Your task to perform on an android device: turn pop-ups off in chrome Image 0: 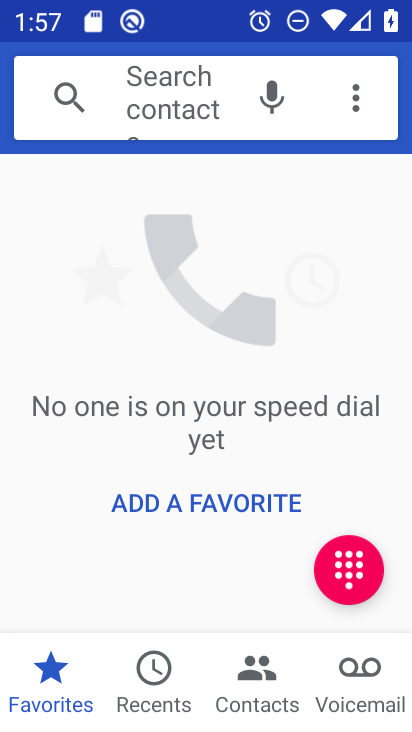
Step 0: press home button
Your task to perform on an android device: turn pop-ups off in chrome Image 1: 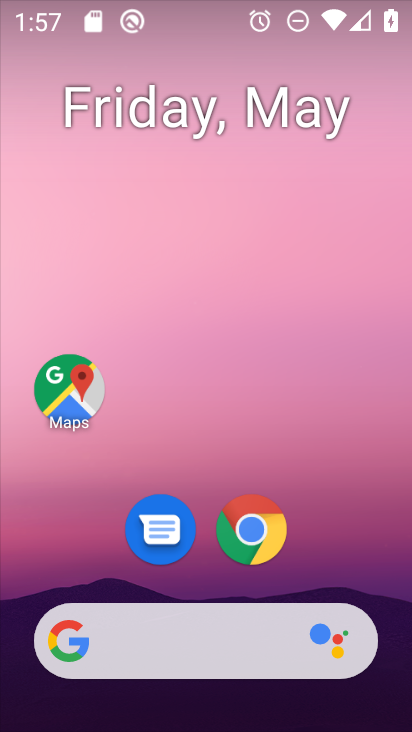
Step 1: drag from (347, 391) to (329, 265)
Your task to perform on an android device: turn pop-ups off in chrome Image 2: 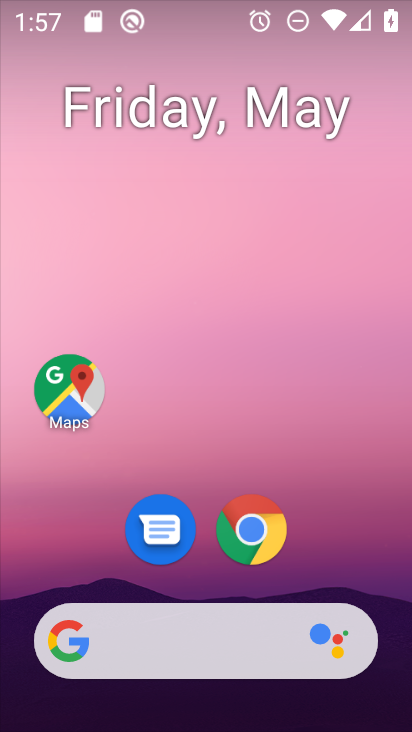
Step 2: drag from (395, 636) to (348, 242)
Your task to perform on an android device: turn pop-ups off in chrome Image 3: 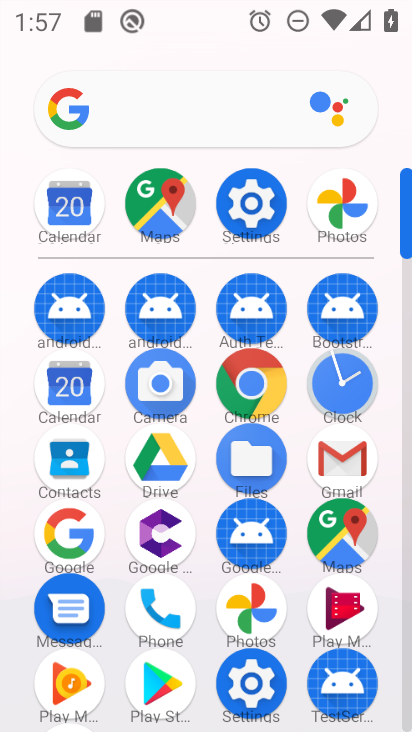
Step 3: click (247, 395)
Your task to perform on an android device: turn pop-ups off in chrome Image 4: 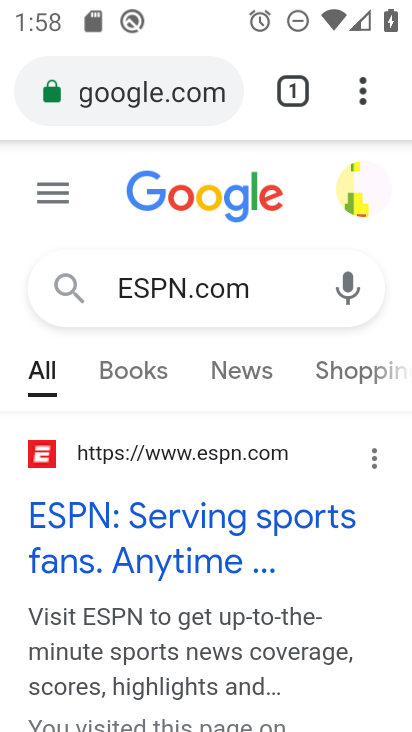
Step 4: click (366, 88)
Your task to perform on an android device: turn pop-ups off in chrome Image 5: 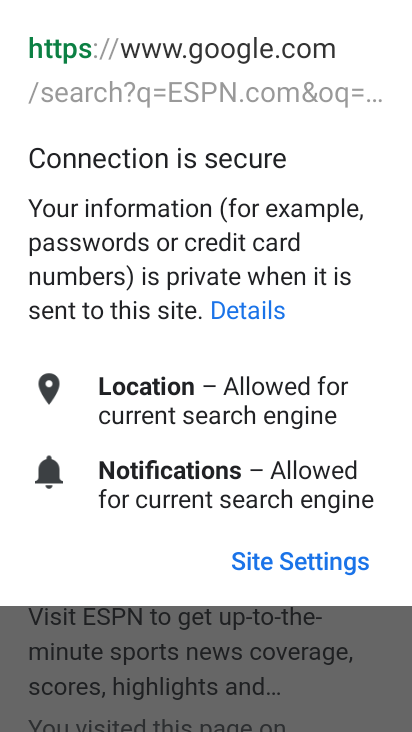
Step 5: press home button
Your task to perform on an android device: turn pop-ups off in chrome Image 6: 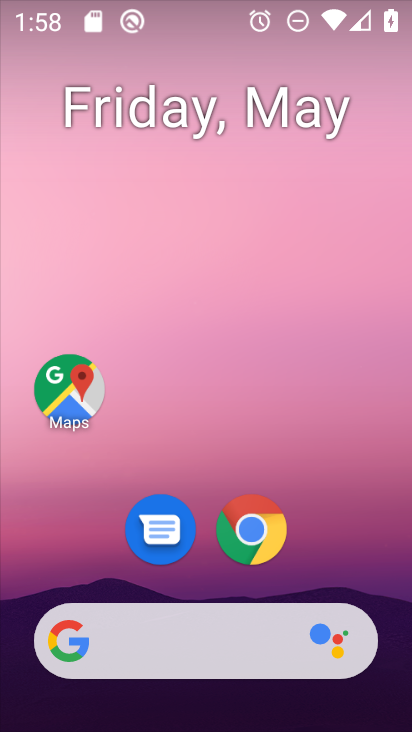
Step 6: click (256, 531)
Your task to perform on an android device: turn pop-ups off in chrome Image 7: 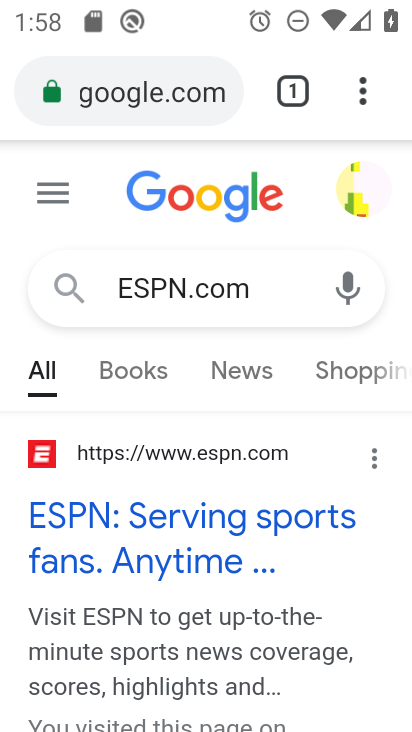
Step 7: click (360, 89)
Your task to perform on an android device: turn pop-ups off in chrome Image 8: 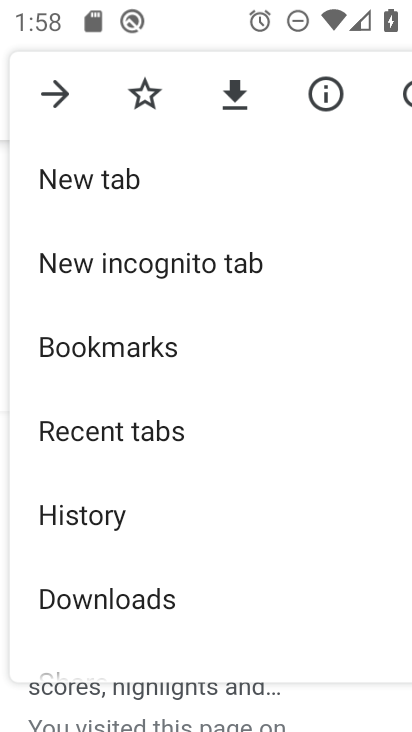
Step 8: drag from (291, 623) to (298, 239)
Your task to perform on an android device: turn pop-ups off in chrome Image 9: 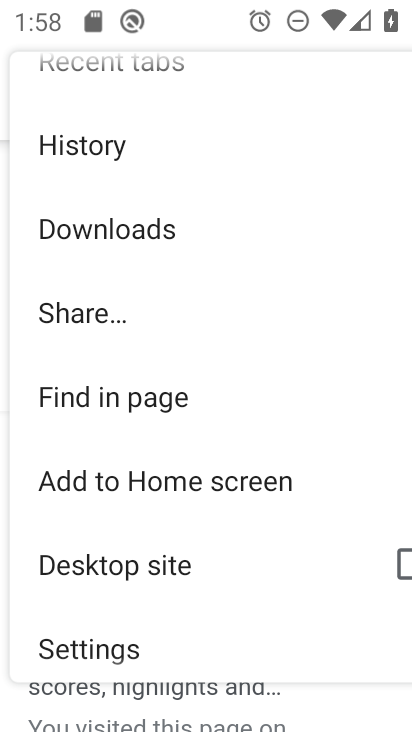
Step 9: drag from (235, 626) to (254, 283)
Your task to perform on an android device: turn pop-ups off in chrome Image 10: 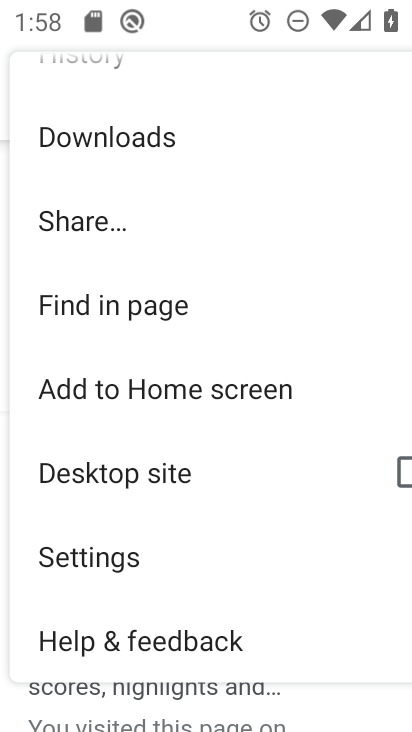
Step 10: drag from (255, 593) to (280, 289)
Your task to perform on an android device: turn pop-ups off in chrome Image 11: 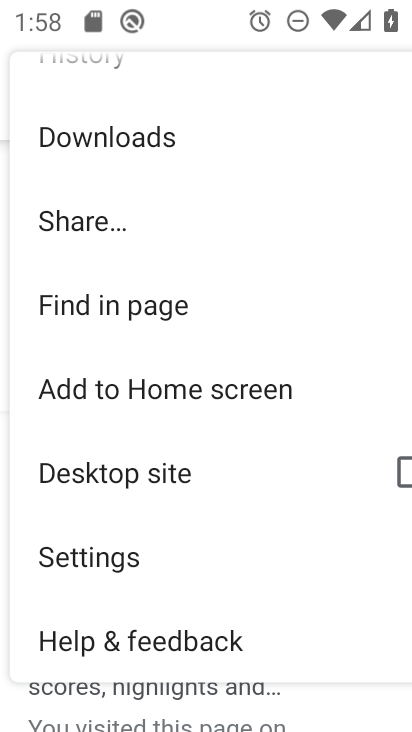
Step 11: click (89, 566)
Your task to perform on an android device: turn pop-ups off in chrome Image 12: 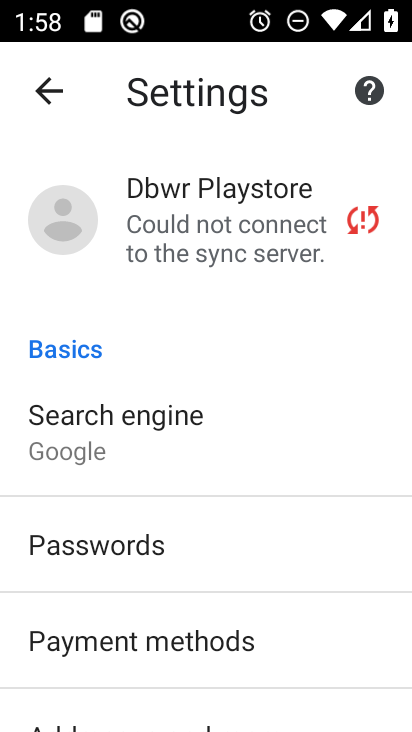
Step 12: drag from (298, 620) to (293, 237)
Your task to perform on an android device: turn pop-ups off in chrome Image 13: 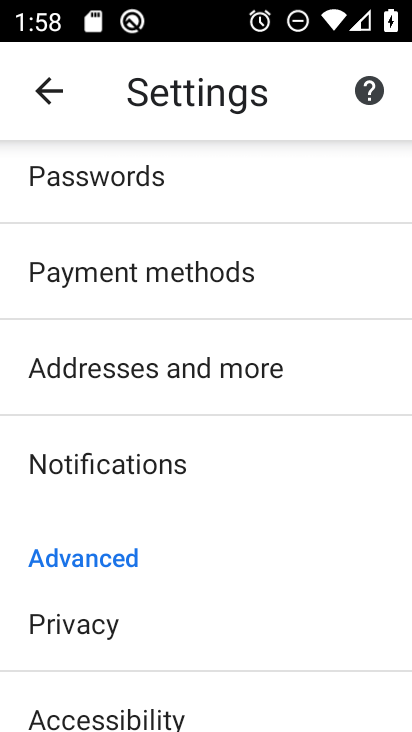
Step 13: drag from (243, 691) to (234, 375)
Your task to perform on an android device: turn pop-ups off in chrome Image 14: 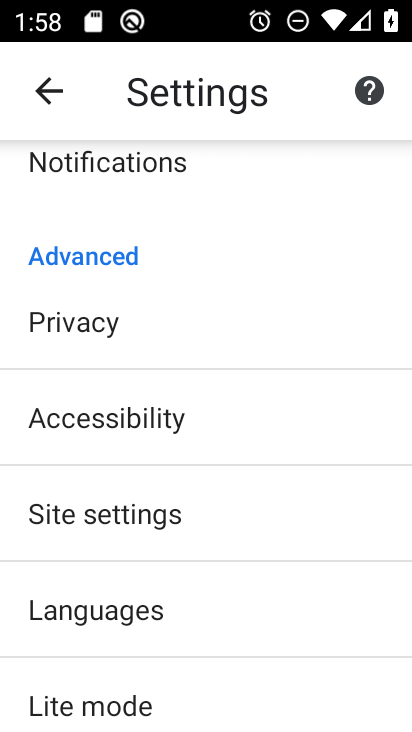
Step 14: click (105, 519)
Your task to perform on an android device: turn pop-ups off in chrome Image 15: 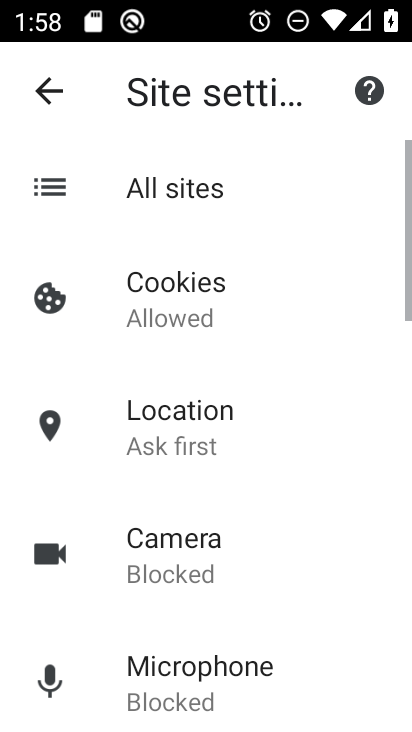
Step 15: drag from (314, 682) to (299, 344)
Your task to perform on an android device: turn pop-ups off in chrome Image 16: 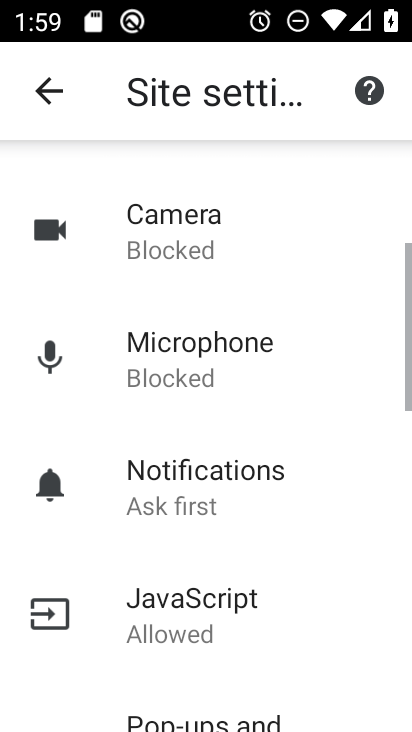
Step 16: drag from (312, 626) to (325, 283)
Your task to perform on an android device: turn pop-ups off in chrome Image 17: 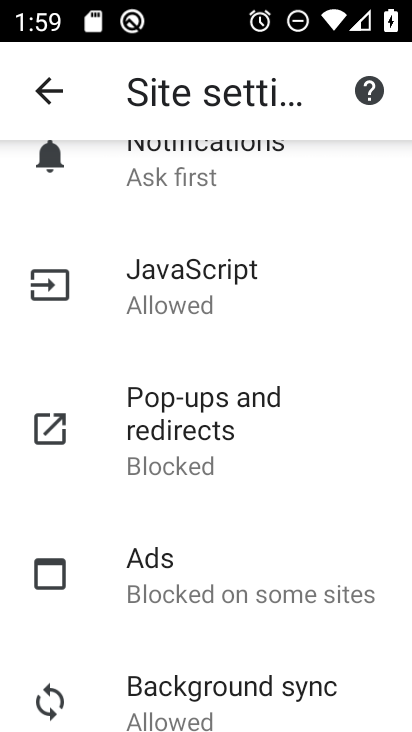
Step 17: click (170, 415)
Your task to perform on an android device: turn pop-ups off in chrome Image 18: 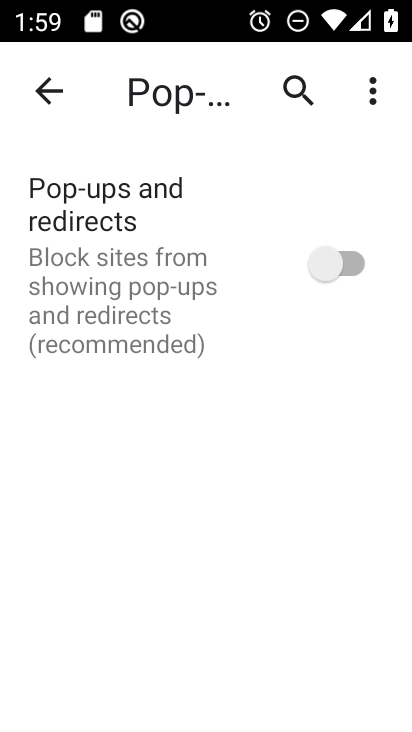
Step 18: task complete